Your task to perform on an android device: toggle pop-ups in chrome Image 0: 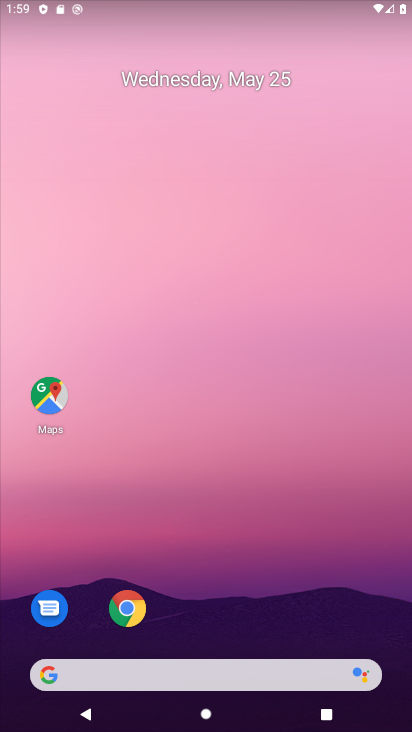
Step 0: click (128, 613)
Your task to perform on an android device: toggle pop-ups in chrome Image 1: 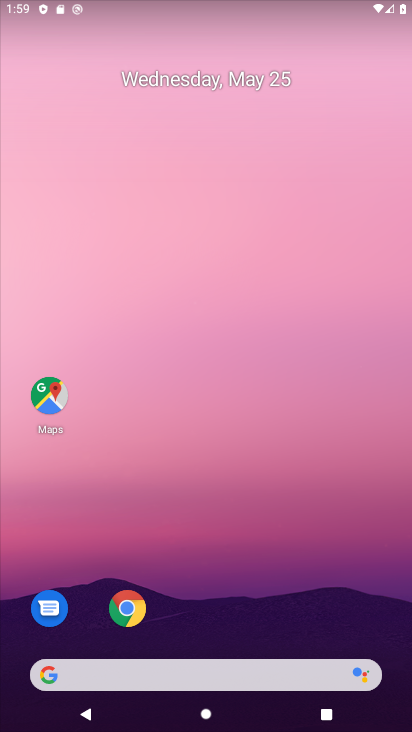
Step 1: click (128, 613)
Your task to perform on an android device: toggle pop-ups in chrome Image 2: 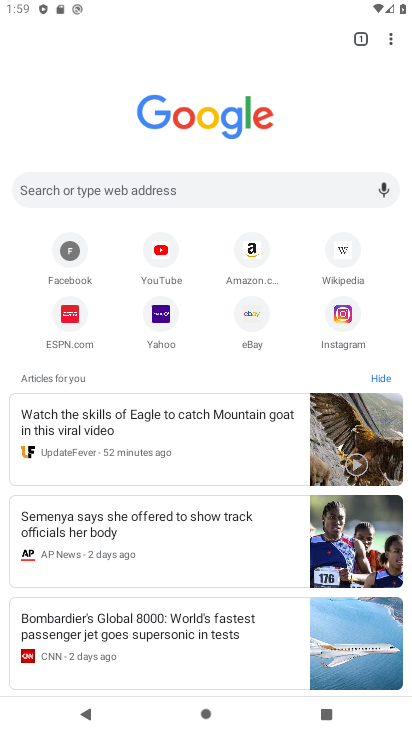
Step 2: click (390, 40)
Your task to perform on an android device: toggle pop-ups in chrome Image 3: 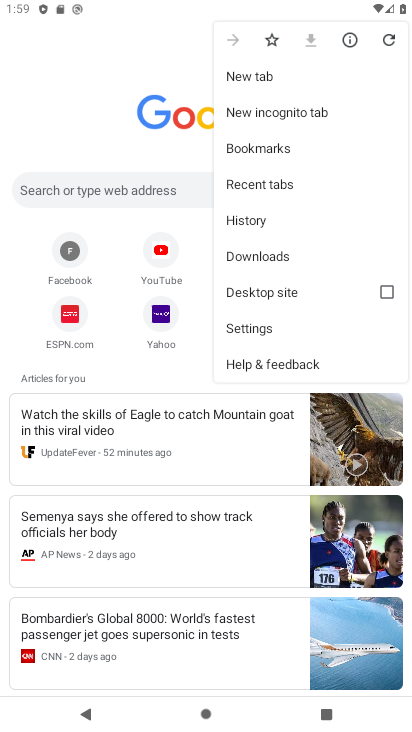
Step 3: click (241, 322)
Your task to perform on an android device: toggle pop-ups in chrome Image 4: 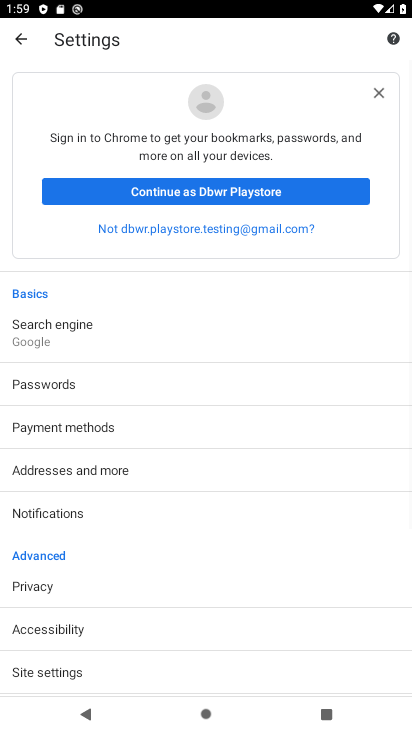
Step 4: drag from (44, 637) to (124, 401)
Your task to perform on an android device: toggle pop-ups in chrome Image 5: 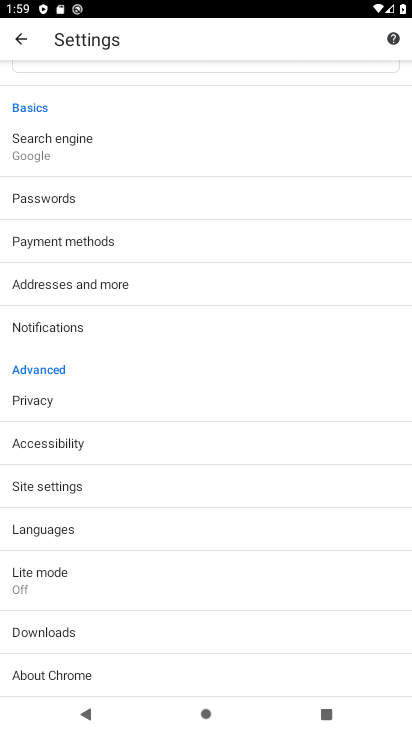
Step 5: click (86, 489)
Your task to perform on an android device: toggle pop-ups in chrome Image 6: 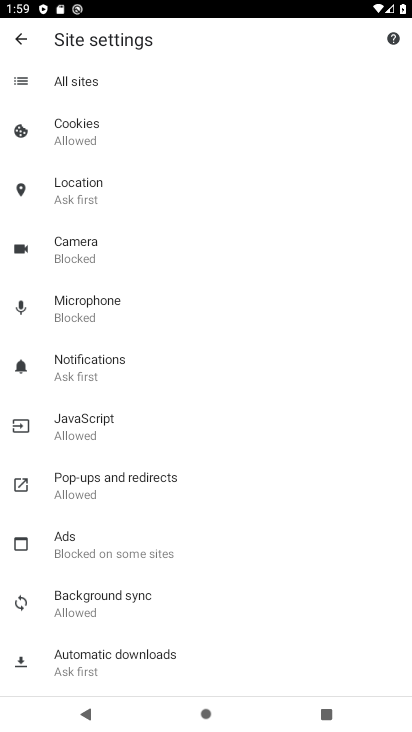
Step 6: click (106, 485)
Your task to perform on an android device: toggle pop-ups in chrome Image 7: 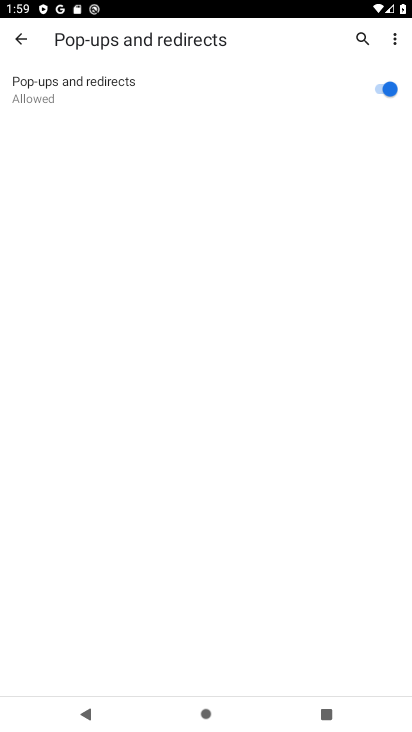
Step 7: click (381, 85)
Your task to perform on an android device: toggle pop-ups in chrome Image 8: 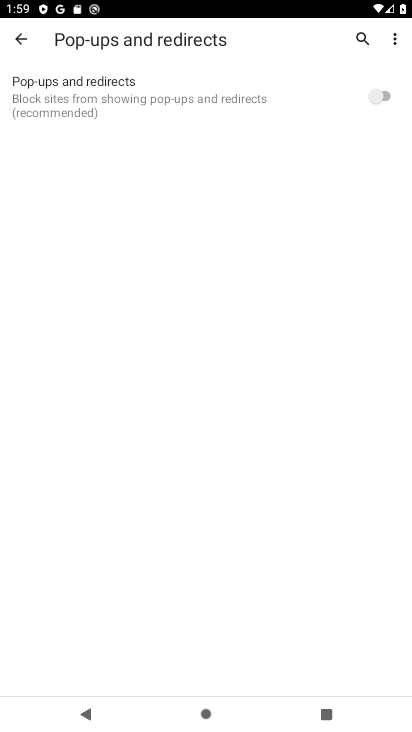
Step 8: task complete